Your task to perform on an android device: Go to network settings Image 0: 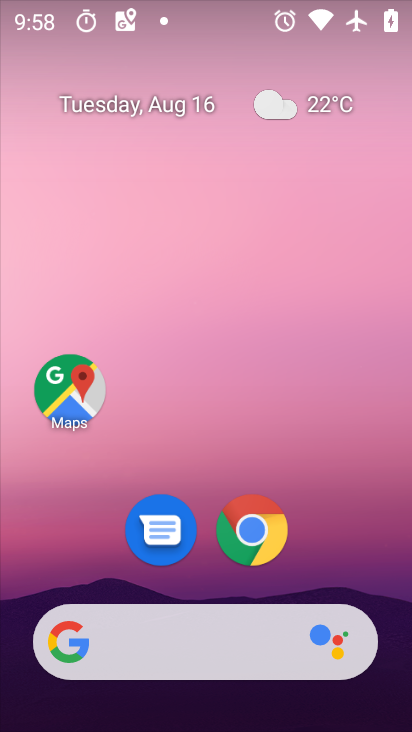
Step 0: drag from (321, 462) to (282, 149)
Your task to perform on an android device: Go to network settings Image 1: 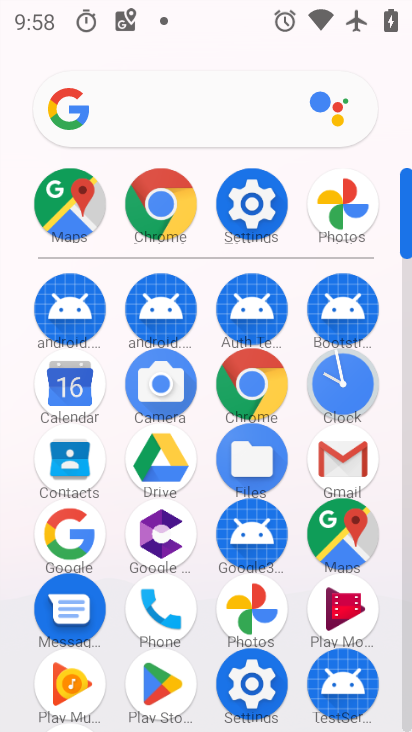
Step 1: click (247, 676)
Your task to perform on an android device: Go to network settings Image 2: 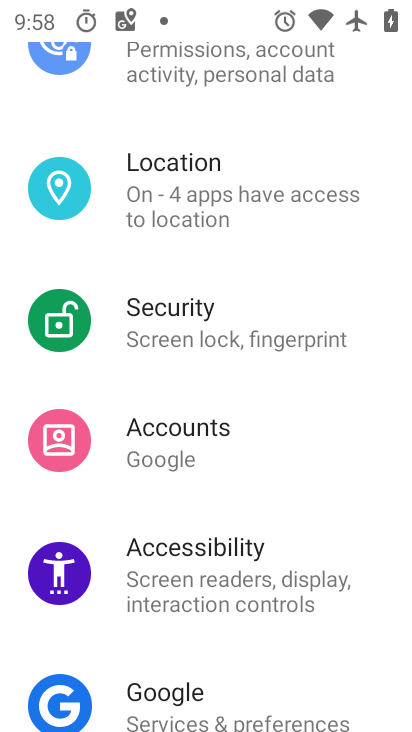
Step 2: drag from (203, 128) to (312, 653)
Your task to perform on an android device: Go to network settings Image 3: 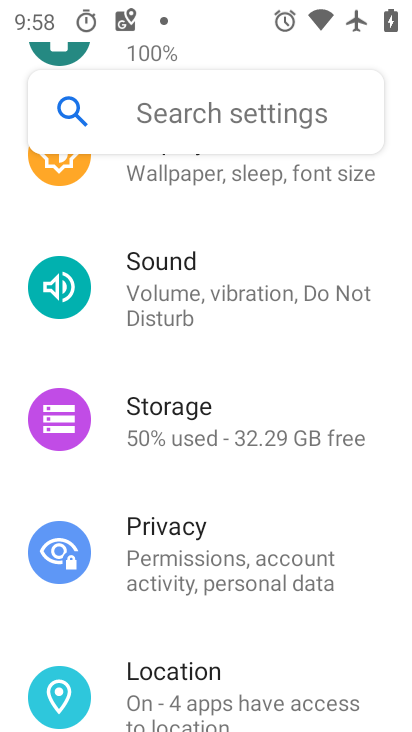
Step 3: drag from (215, 201) to (180, 558)
Your task to perform on an android device: Go to network settings Image 4: 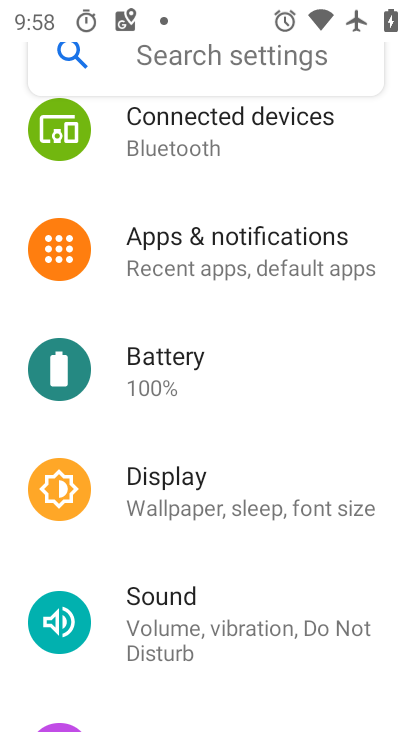
Step 4: drag from (197, 190) to (231, 582)
Your task to perform on an android device: Go to network settings Image 5: 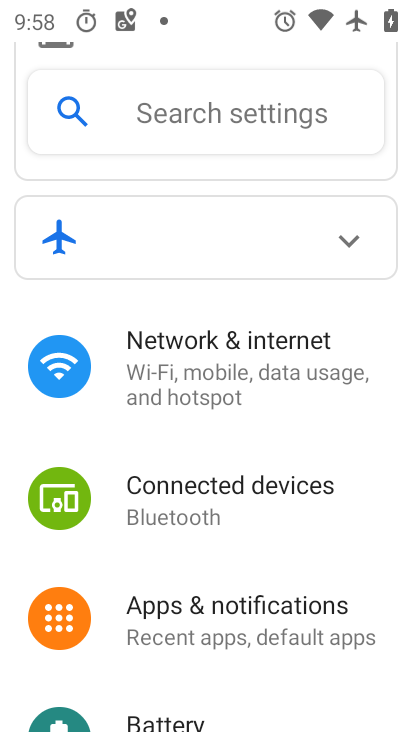
Step 5: click (196, 364)
Your task to perform on an android device: Go to network settings Image 6: 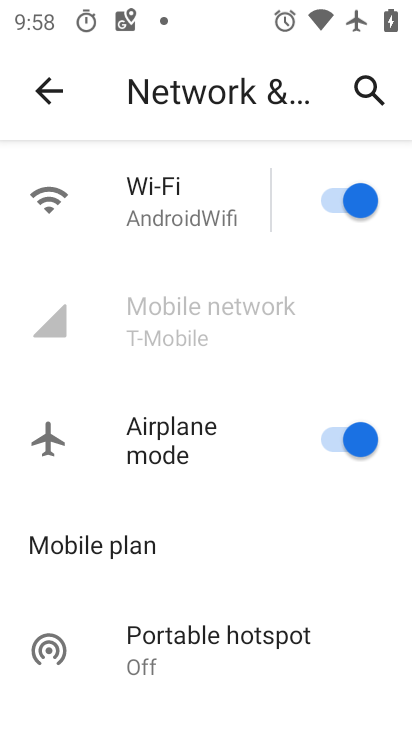
Step 6: task complete